Your task to perform on an android device: toggle data saver in the chrome app Image 0: 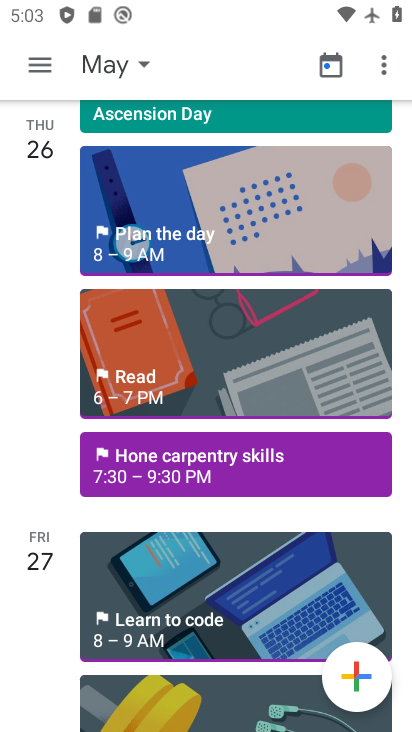
Step 0: press home button
Your task to perform on an android device: toggle data saver in the chrome app Image 1: 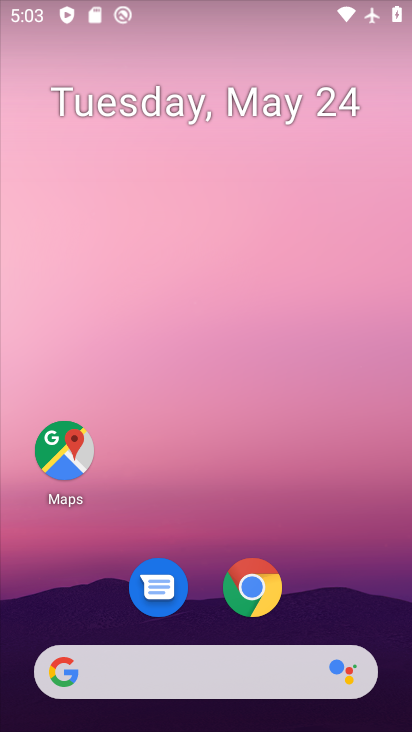
Step 1: click (240, 581)
Your task to perform on an android device: toggle data saver in the chrome app Image 2: 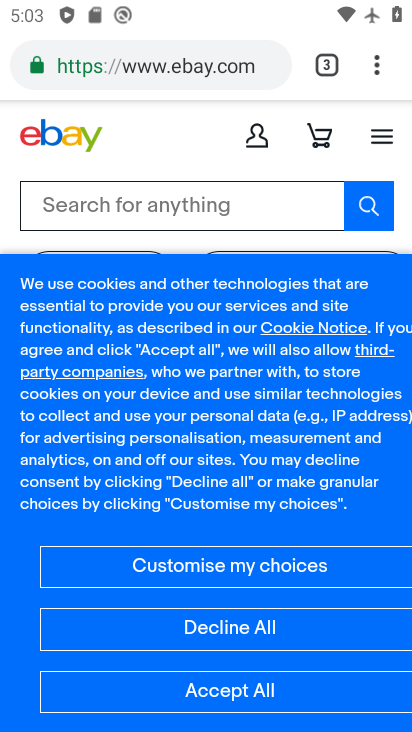
Step 2: click (376, 62)
Your task to perform on an android device: toggle data saver in the chrome app Image 3: 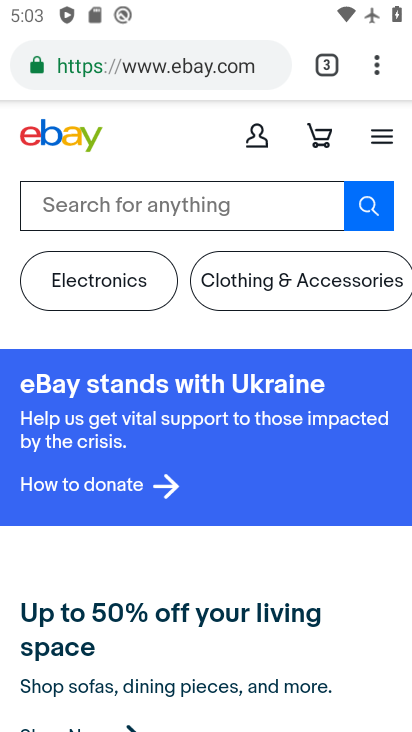
Step 3: click (377, 81)
Your task to perform on an android device: toggle data saver in the chrome app Image 4: 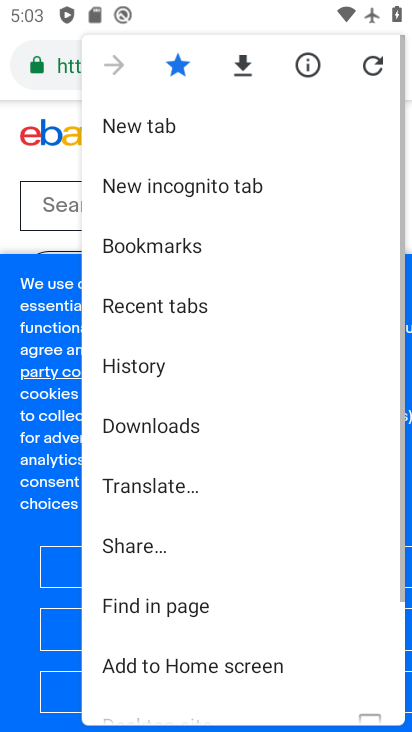
Step 4: drag from (298, 575) to (278, 90)
Your task to perform on an android device: toggle data saver in the chrome app Image 5: 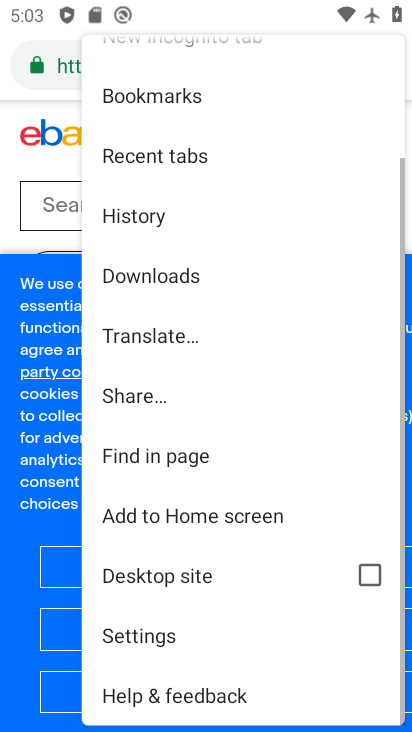
Step 5: click (192, 634)
Your task to perform on an android device: toggle data saver in the chrome app Image 6: 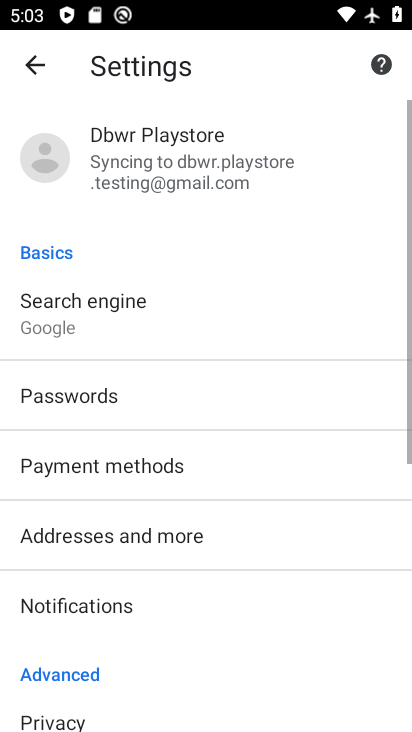
Step 6: drag from (235, 634) to (199, 55)
Your task to perform on an android device: toggle data saver in the chrome app Image 7: 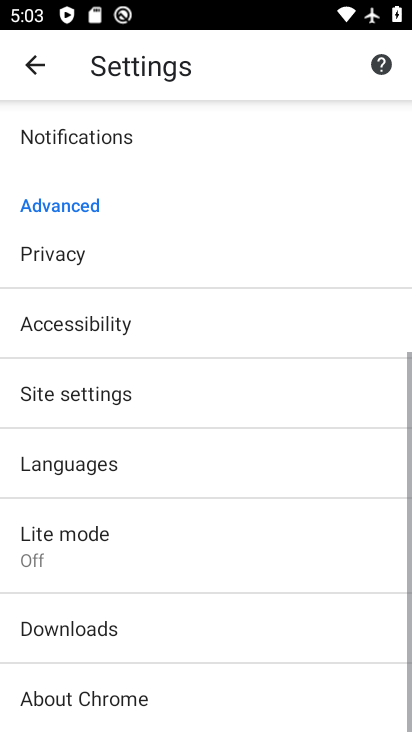
Step 7: click (177, 563)
Your task to perform on an android device: toggle data saver in the chrome app Image 8: 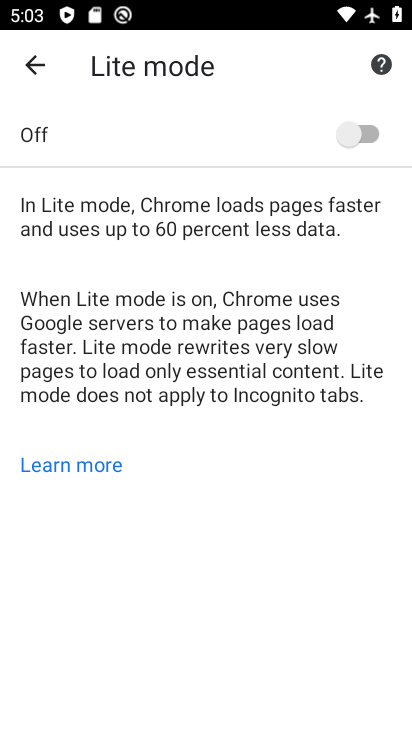
Step 8: click (364, 134)
Your task to perform on an android device: toggle data saver in the chrome app Image 9: 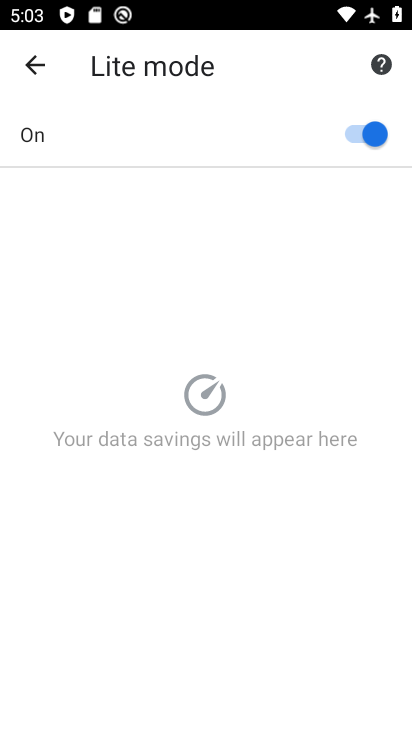
Step 9: task complete